Your task to perform on an android device: open wifi settings Image 0: 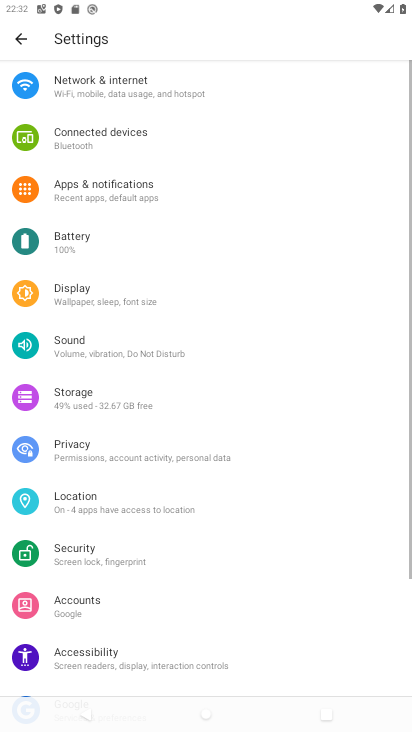
Step 0: press home button
Your task to perform on an android device: open wifi settings Image 1: 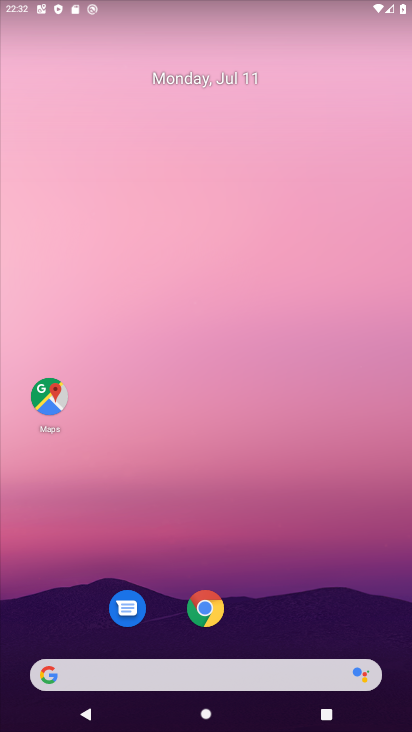
Step 1: drag from (48, 687) to (185, 157)
Your task to perform on an android device: open wifi settings Image 2: 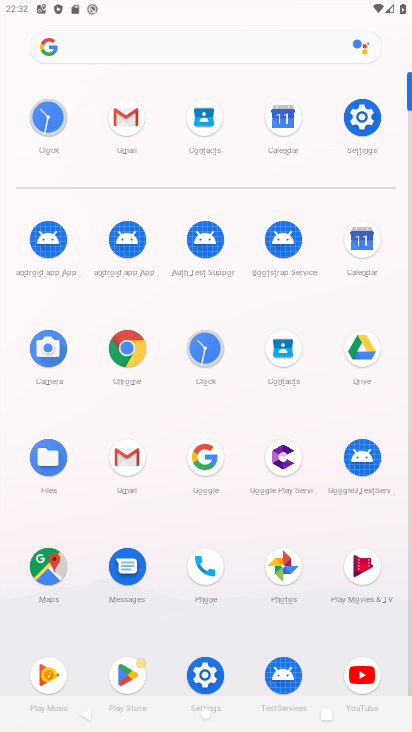
Step 2: click (199, 661)
Your task to perform on an android device: open wifi settings Image 3: 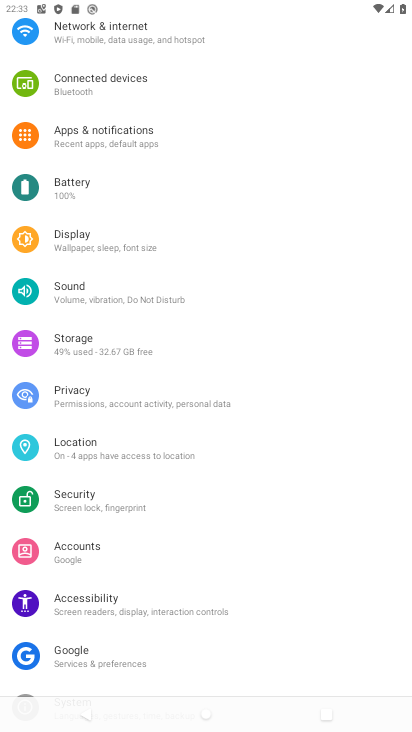
Step 3: click (102, 21)
Your task to perform on an android device: open wifi settings Image 4: 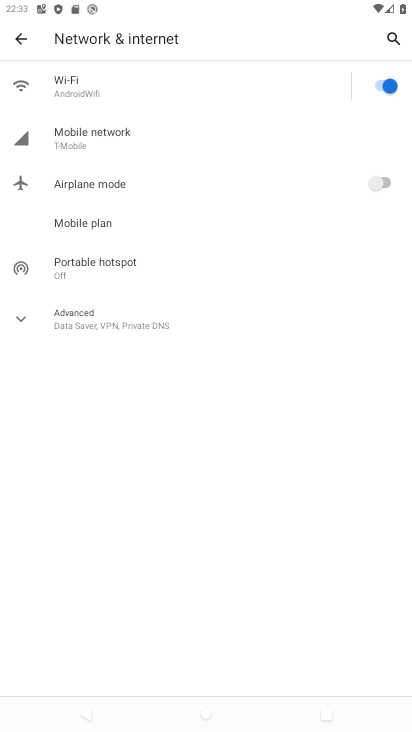
Step 4: task complete